Your task to perform on an android device: Add "razer blackwidow" to the cart on walmart, then select checkout. Image 0: 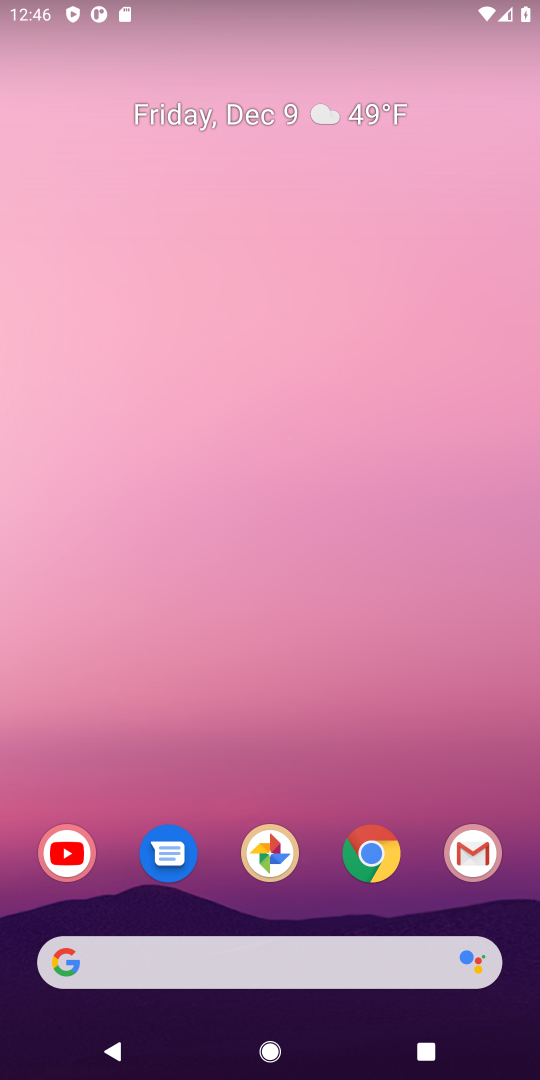
Step 0: drag from (222, 830) to (284, 375)
Your task to perform on an android device: Add "razer blackwidow" to the cart on walmart, then select checkout. Image 1: 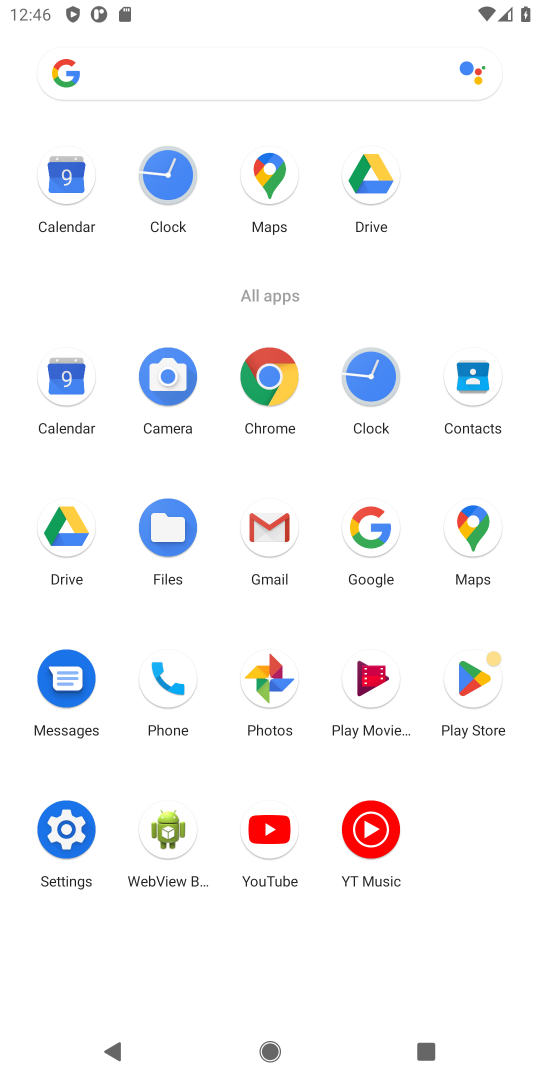
Step 1: click (373, 533)
Your task to perform on an android device: Add "razer blackwidow" to the cart on walmart, then select checkout. Image 2: 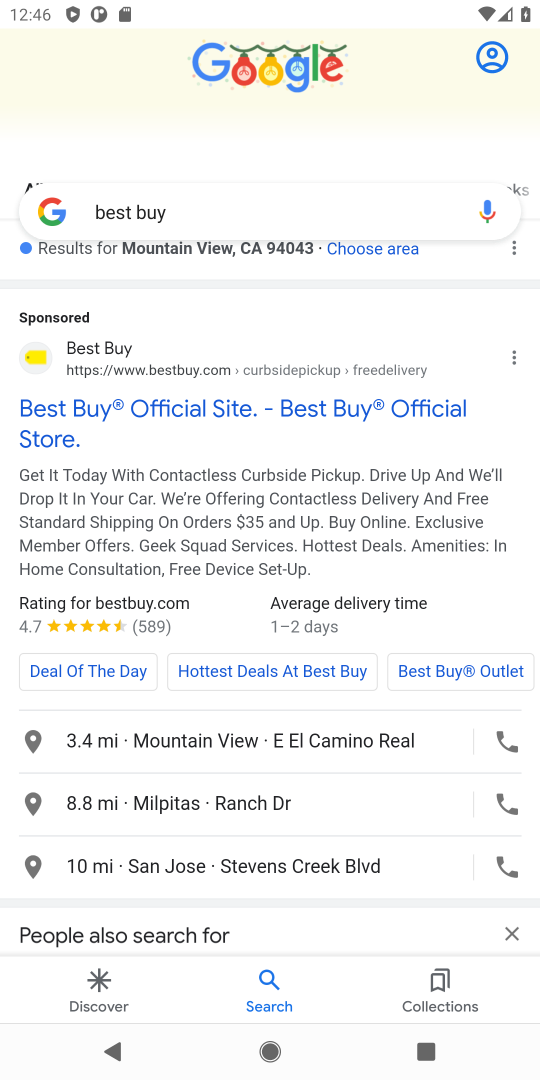
Step 2: click (146, 215)
Your task to perform on an android device: Add "razer blackwidow" to the cart on walmart, then select checkout. Image 3: 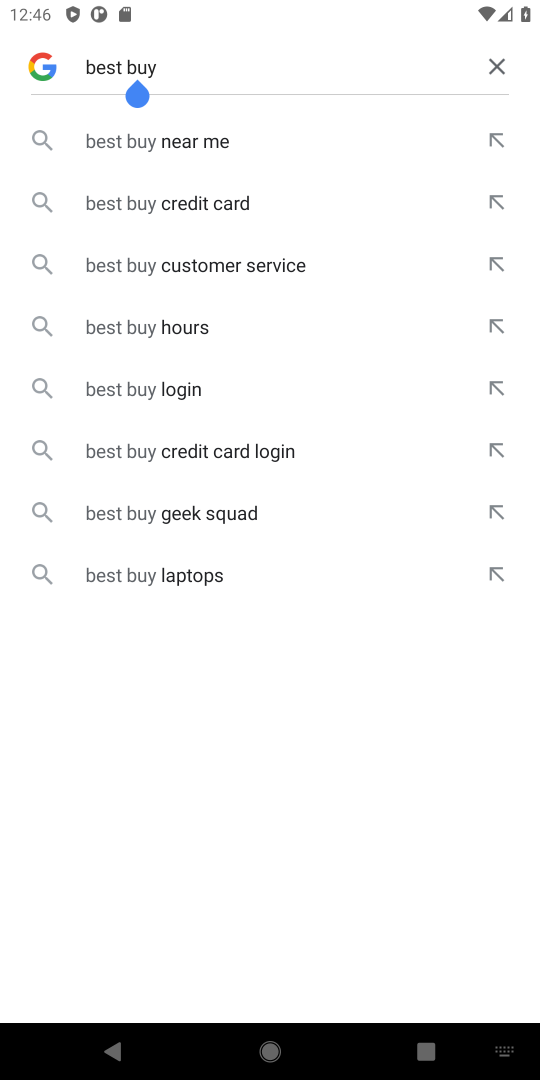
Step 3: click (496, 60)
Your task to perform on an android device: Add "razer blackwidow" to the cart on walmart, then select checkout. Image 4: 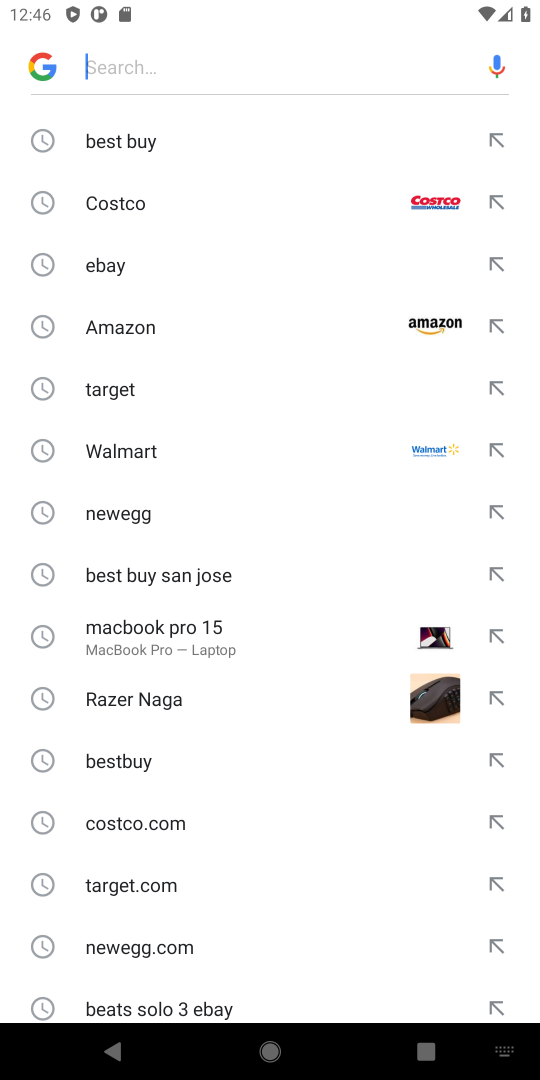
Step 4: click (124, 451)
Your task to perform on an android device: Add "razer blackwidow" to the cart on walmart, then select checkout. Image 5: 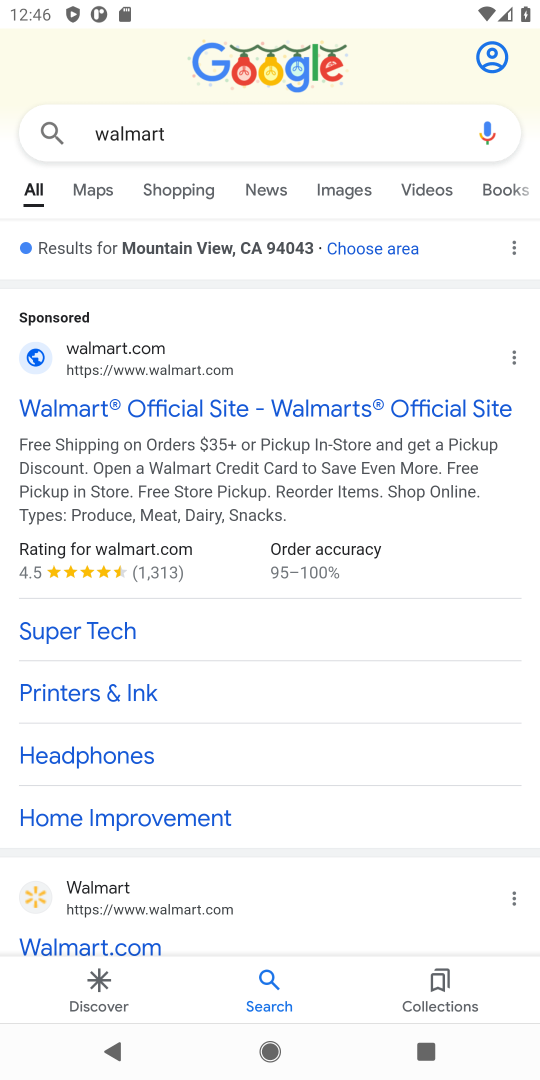
Step 5: click (227, 121)
Your task to perform on an android device: Add "razer blackwidow" to the cart on walmart, then select checkout. Image 6: 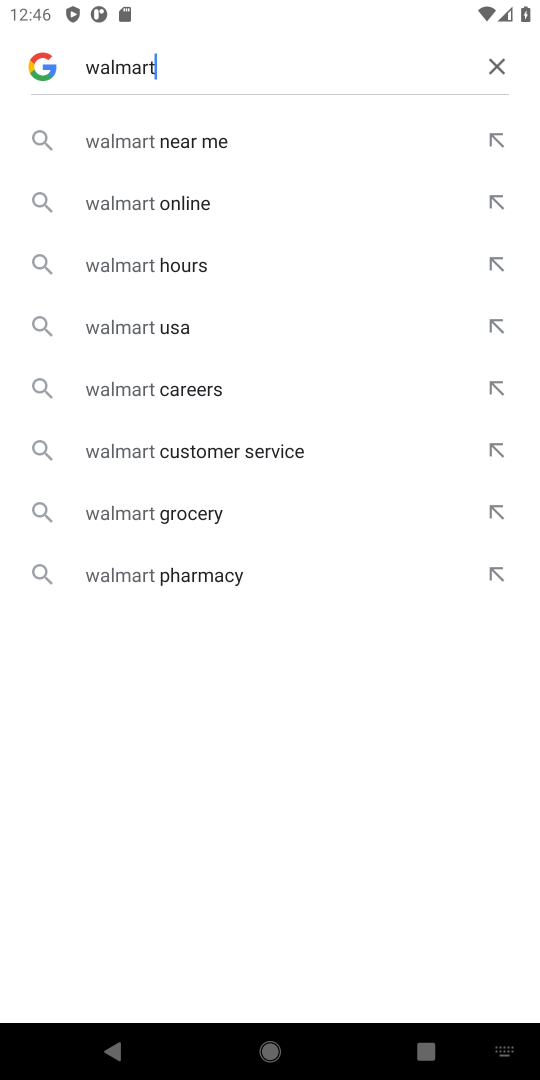
Step 6: click (495, 68)
Your task to perform on an android device: Add "razer blackwidow" to the cart on walmart, then select checkout. Image 7: 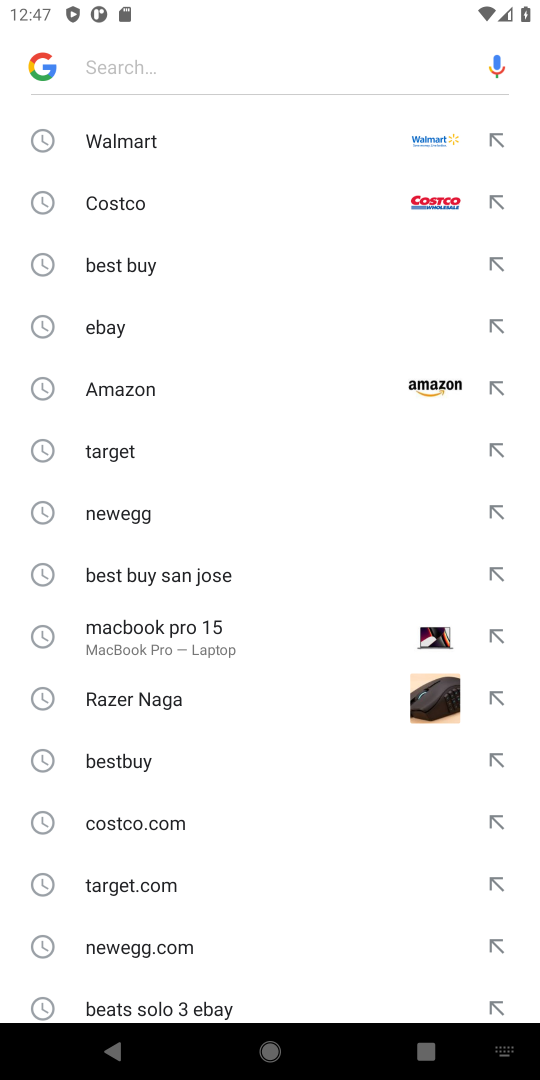
Step 7: click (122, 137)
Your task to perform on an android device: Add "razer blackwidow" to the cart on walmart, then select checkout. Image 8: 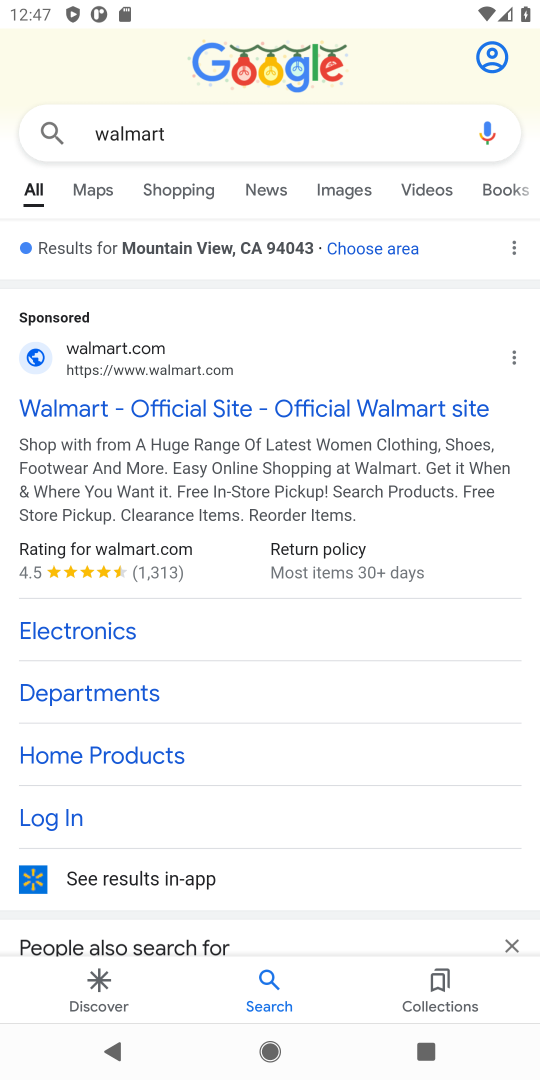
Step 8: click (222, 418)
Your task to perform on an android device: Add "razer blackwidow" to the cart on walmart, then select checkout. Image 9: 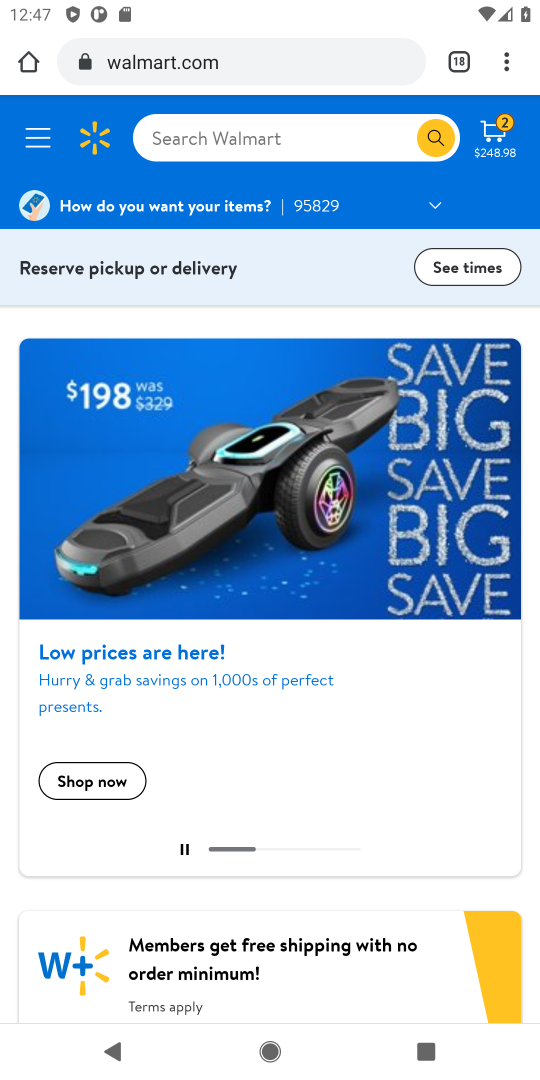
Step 9: click (249, 144)
Your task to perform on an android device: Add "razer blackwidow" to the cart on walmart, then select checkout. Image 10: 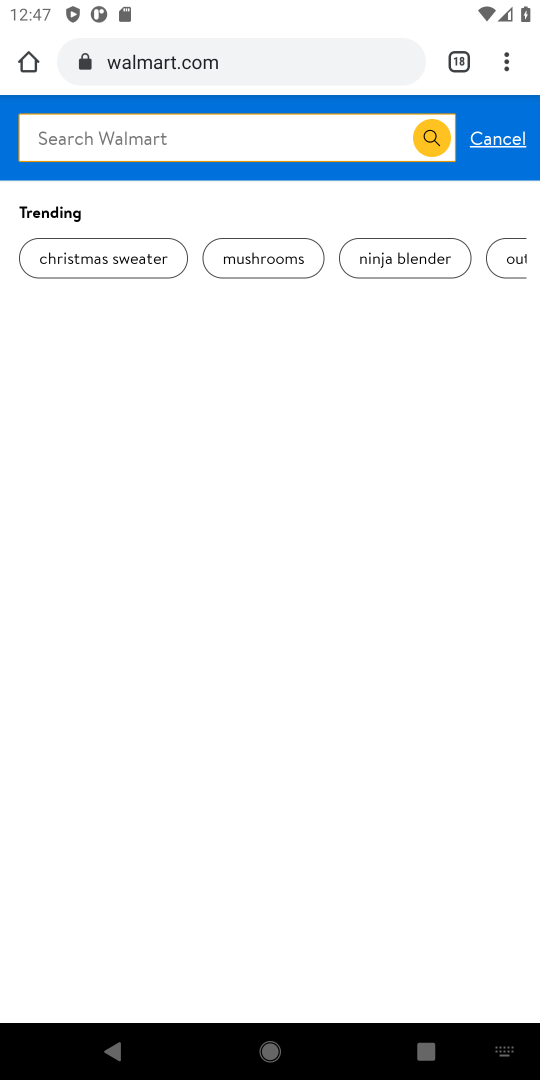
Step 10: type "razer blackwidow"
Your task to perform on an android device: Add "razer blackwidow" to the cart on walmart, then select checkout. Image 11: 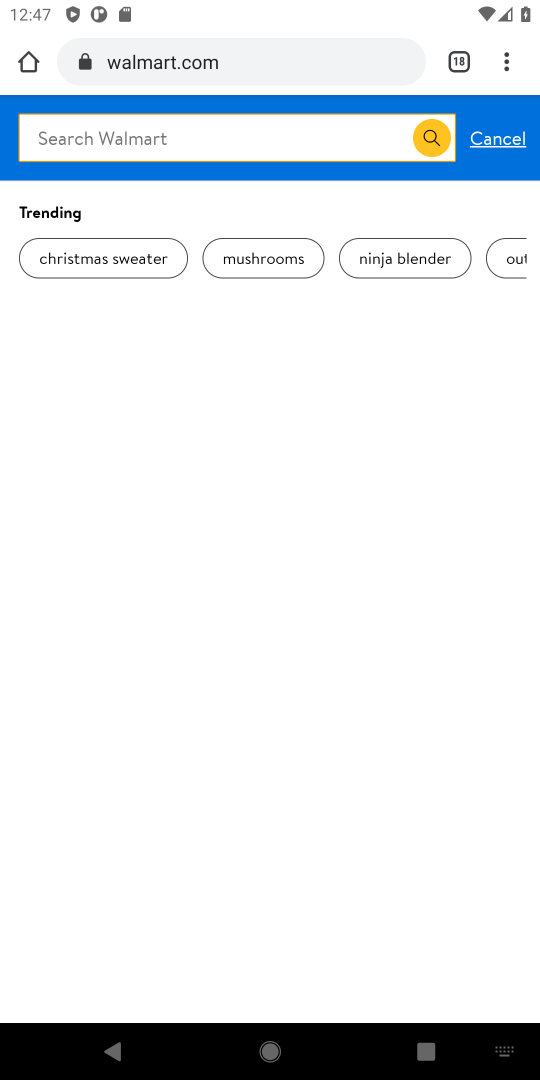
Step 11: click (436, 137)
Your task to perform on an android device: Add "razer blackwidow" to the cart on walmart, then select checkout. Image 12: 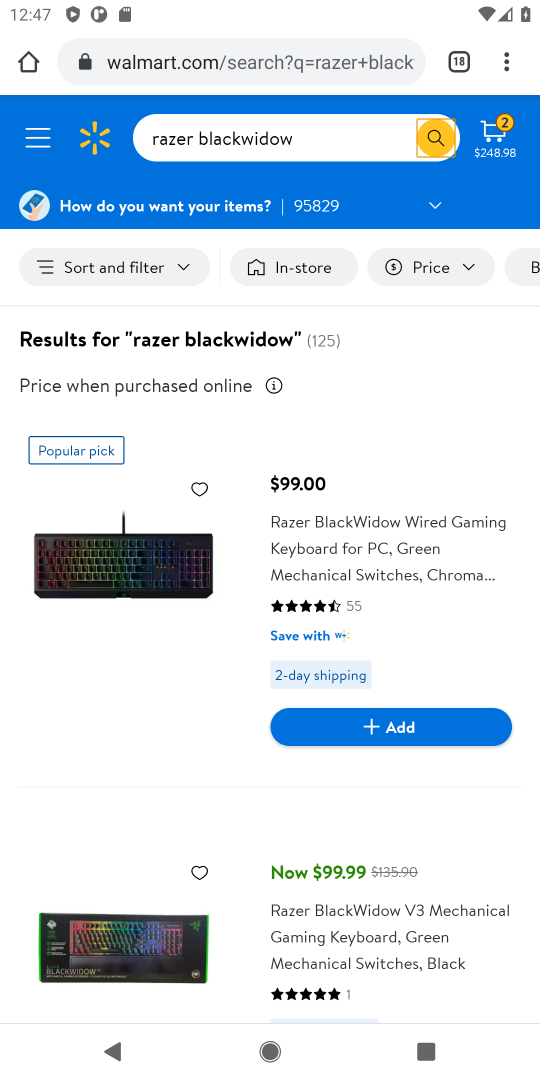
Step 12: click (371, 721)
Your task to perform on an android device: Add "razer blackwidow" to the cart on walmart, then select checkout. Image 13: 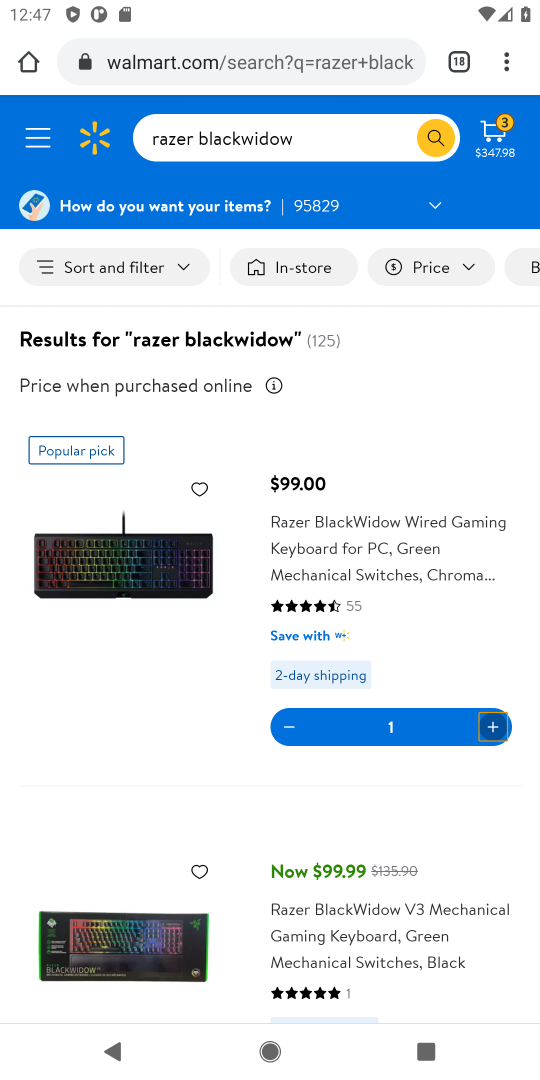
Step 13: click (496, 130)
Your task to perform on an android device: Add "razer blackwidow" to the cart on walmart, then select checkout. Image 14: 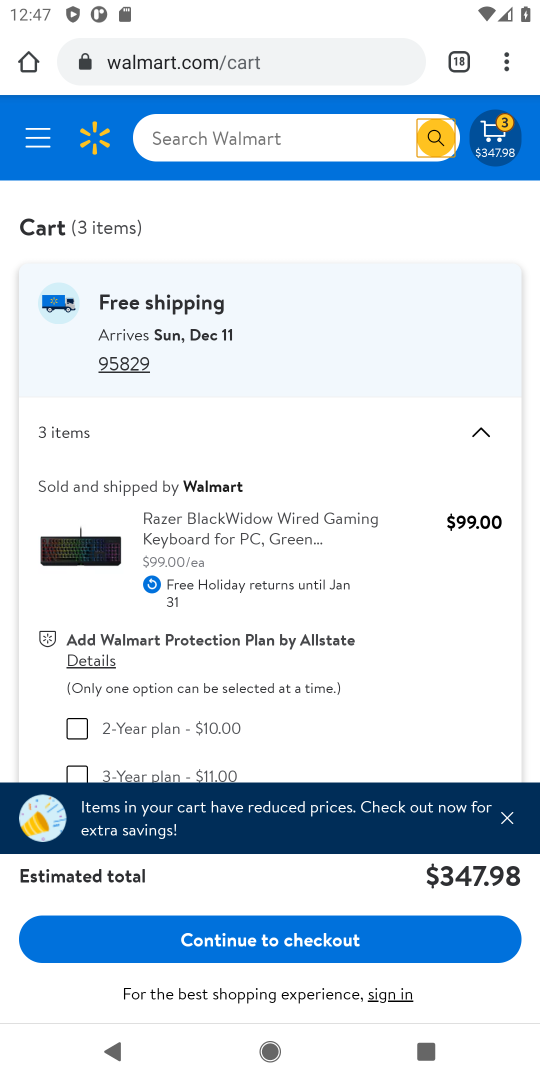
Step 14: click (246, 946)
Your task to perform on an android device: Add "razer blackwidow" to the cart on walmart, then select checkout. Image 15: 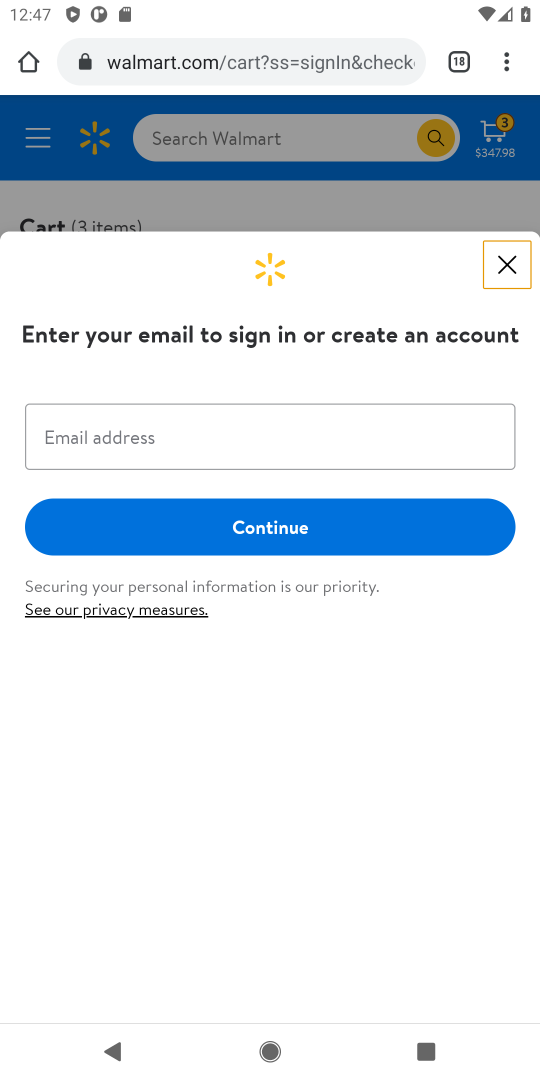
Step 15: task complete